Your task to perform on an android device: open app "Yahoo Mail" (install if not already installed) Image 0: 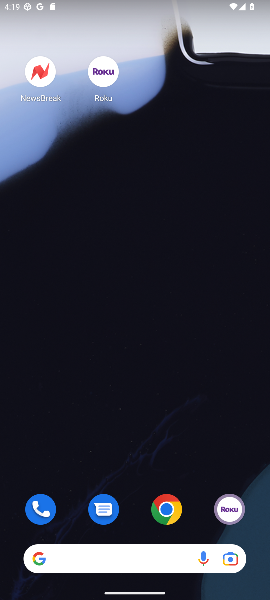
Step 0: drag from (165, 524) to (187, 2)
Your task to perform on an android device: open app "Yahoo Mail" (install if not already installed) Image 1: 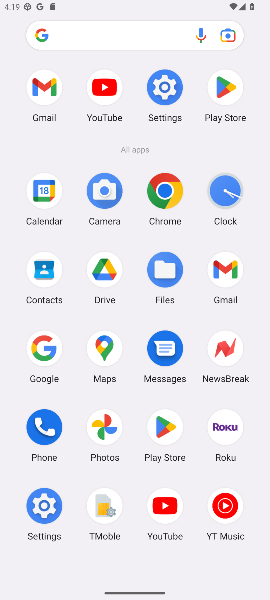
Step 1: click (164, 425)
Your task to perform on an android device: open app "Yahoo Mail" (install if not already installed) Image 2: 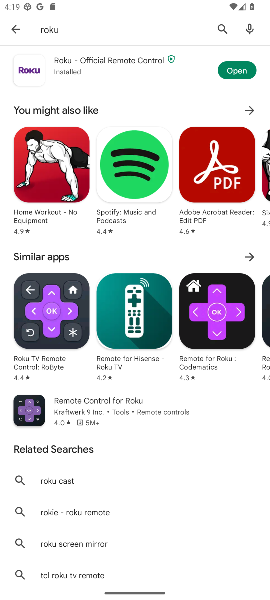
Step 2: click (221, 24)
Your task to perform on an android device: open app "Yahoo Mail" (install if not already installed) Image 3: 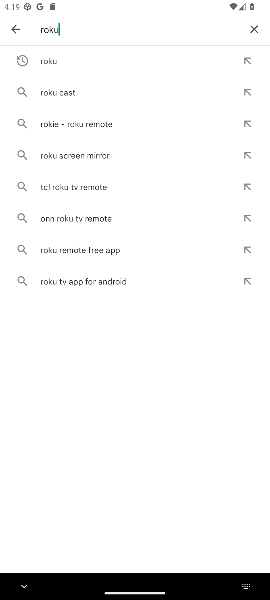
Step 3: click (254, 31)
Your task to perform on an android device: open app "Yahoo Mail" (install if not already installed) Image 4: 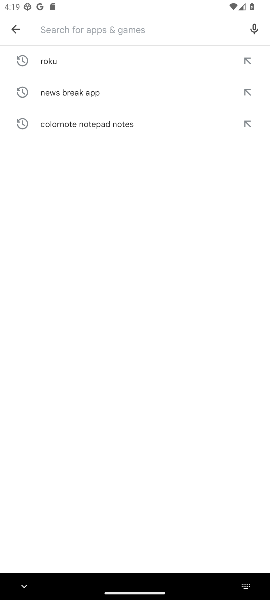
Step 4: type "yahoo mail"
Your task to perform on an android device: open app "Yahoo Mail" (install if not already installed) Image 5: 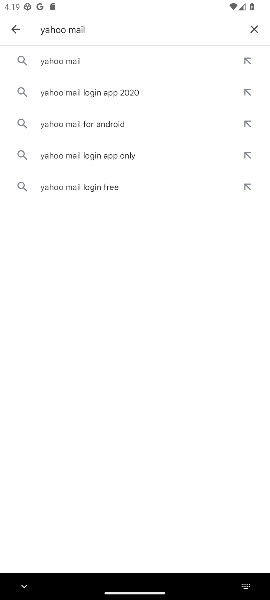
Step 5: click (84, 54)
Your task to perform on an android device: open app "Yahoo Mail" (install if not already installed) Image 6: 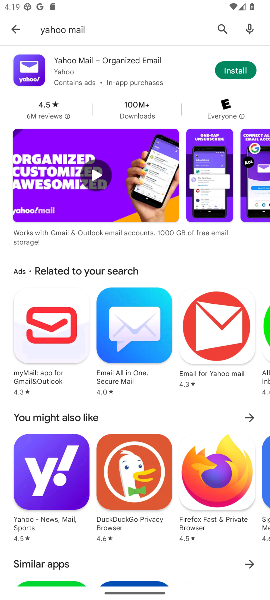
Step 6: click (244, 72)
Your task to perform on an android device: open app "Yahoo Mail" (install if not already installed) Image 7: 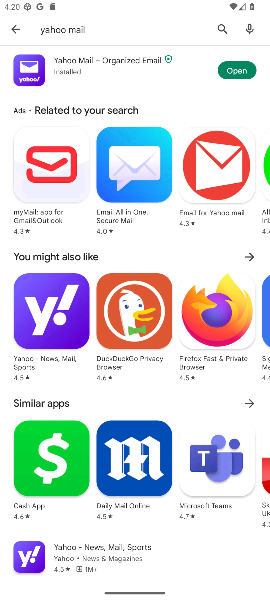
Step 7: click (247, 66)
Your task to perform on an android device: open app "Yahoo Mail" (install if not already installed) Image 8: 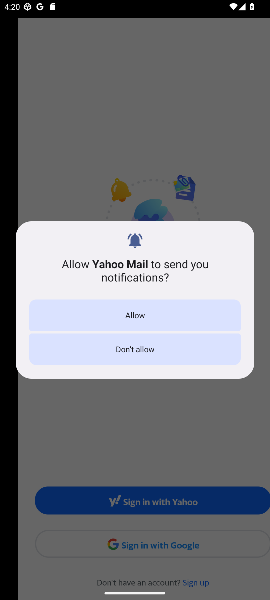
Step 8: click (134, 343)
Your task to perform on an android device: open app "Yahoo Mail" (install if not already installed) Image 9: 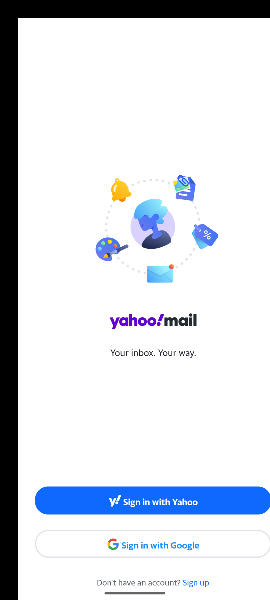
Step 9: task complete